Your task to perform on an android device: Go to wifi settings Image 0: 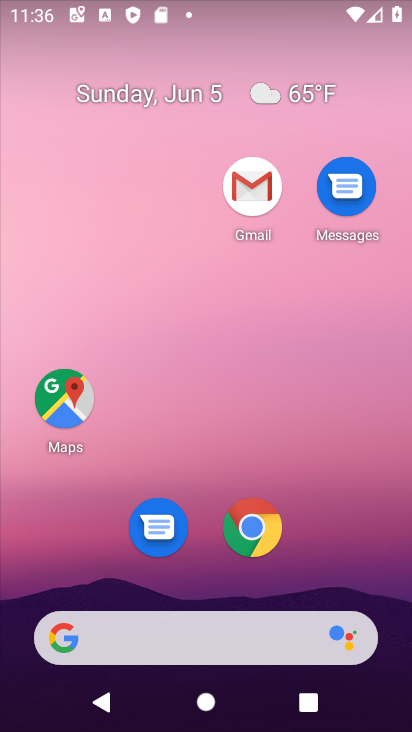
Step 0: drag from (338, 509) to (296, 156)
Your task to perform on an android device: Go to wifi settings Image 1: 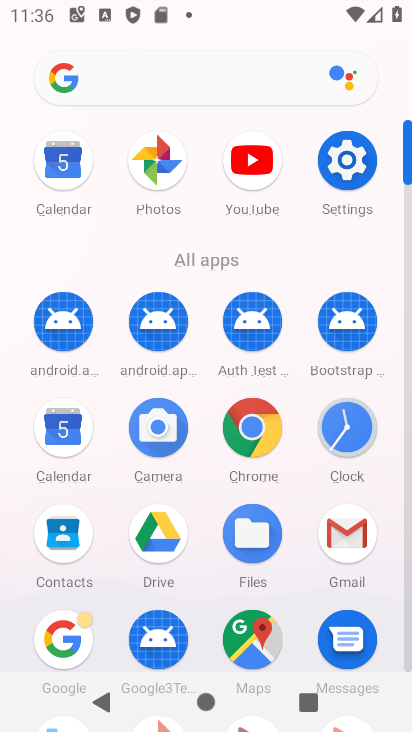
Step 1: click (337, 163)
Your task to perform on an android device: Go to wifi settings Image 2: 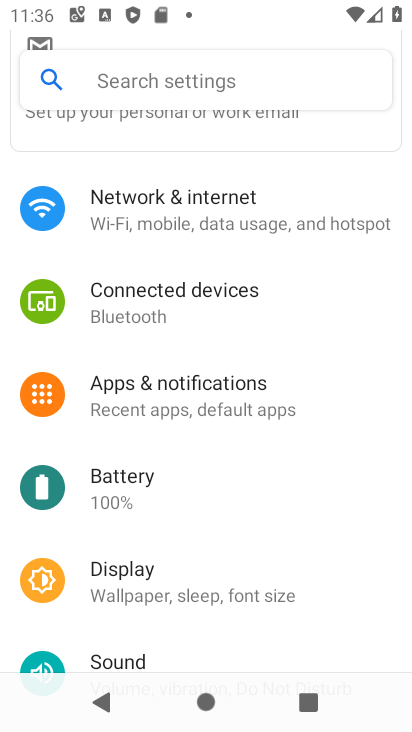
Step 2: click (183, 203)
Your task to perform on an android device: Go to wifi settings Image 3: 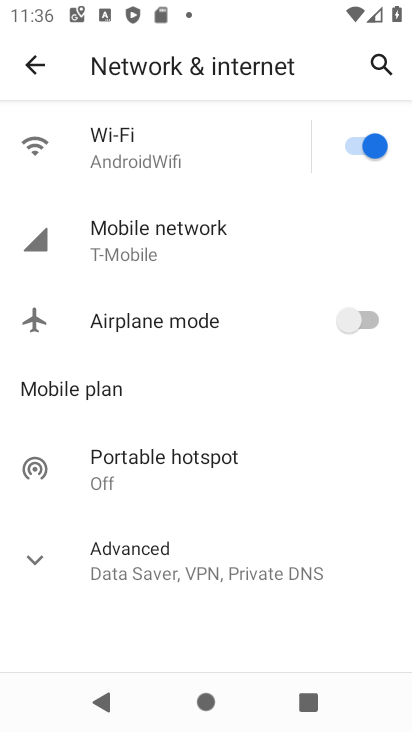
Step 3: click (216, 162)
Your task to perform on an android device: Go to wifi settings Image 4: 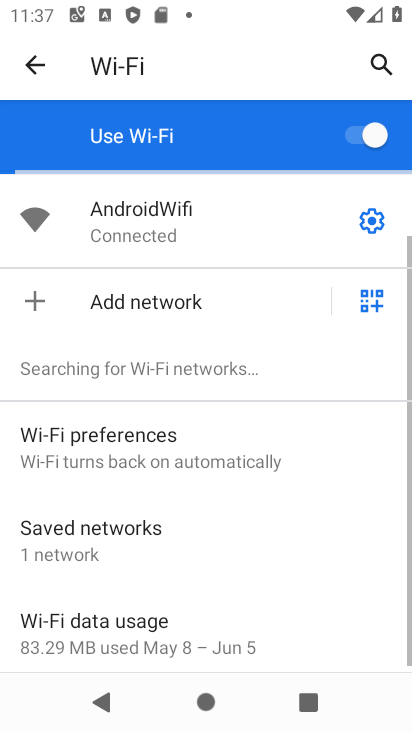
Step 4: task complete